Your task to perform on an android device: change the clock display to analog Image 0: 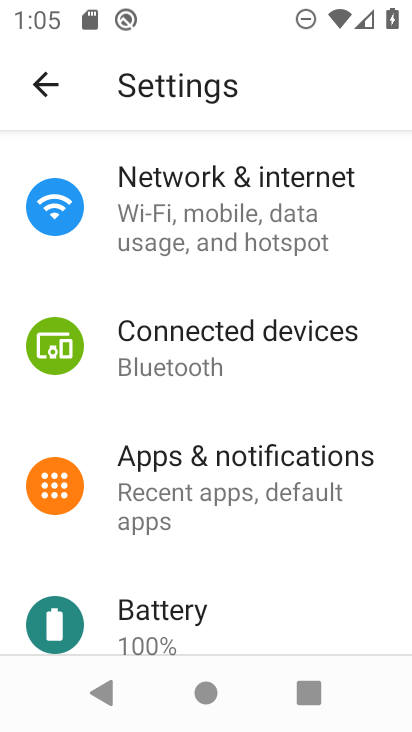
Step 0: press home button
Your task to perform on an android device: change the clock display to analog Image 1: 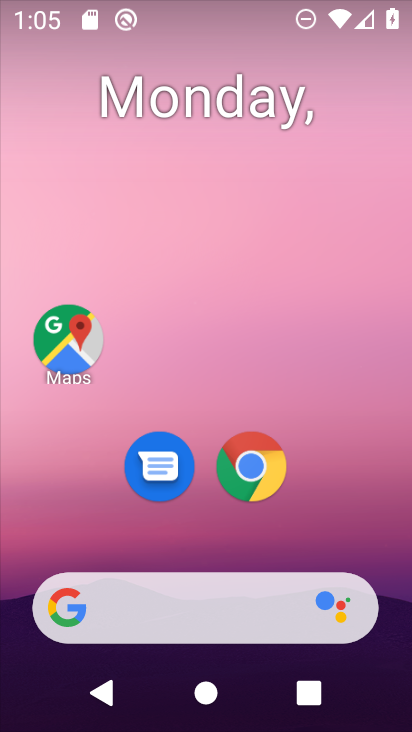
Step 1: drag from (207, 549) to (245, 20)
Your task to perform on an android device: change the clock display to analog Image 2: 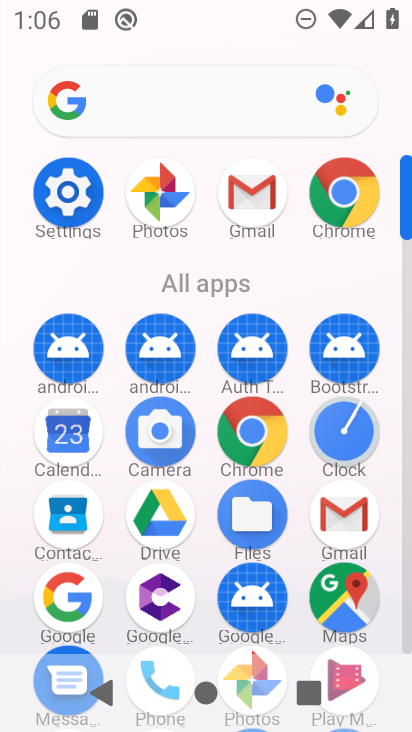
Step 2: click (338, 427)
Your task to perform on an android device: change the clock display to analog Image 3: 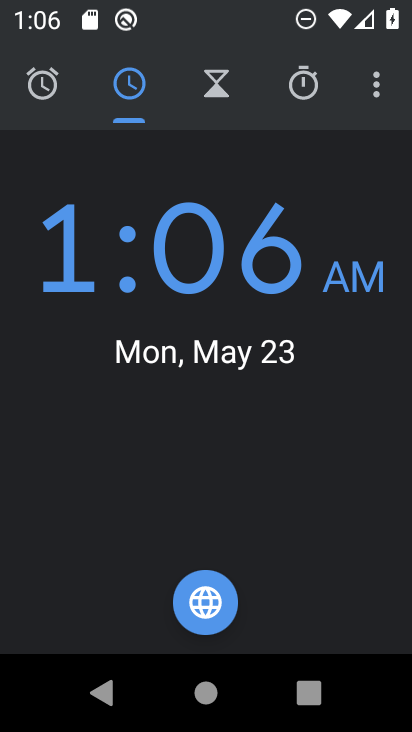
Step 3: click (371, 77)
Your task to perform on an android device: change the clock display to analog Image 4: 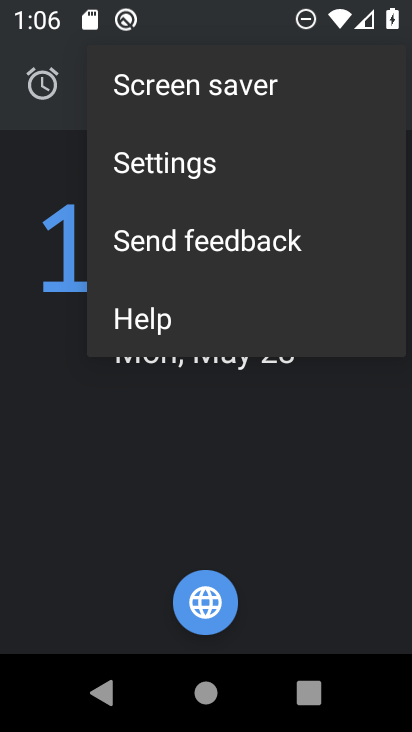
Step 4: click (192, 164)
Your task to perform on an android device: change the clock display to analog Image 5: 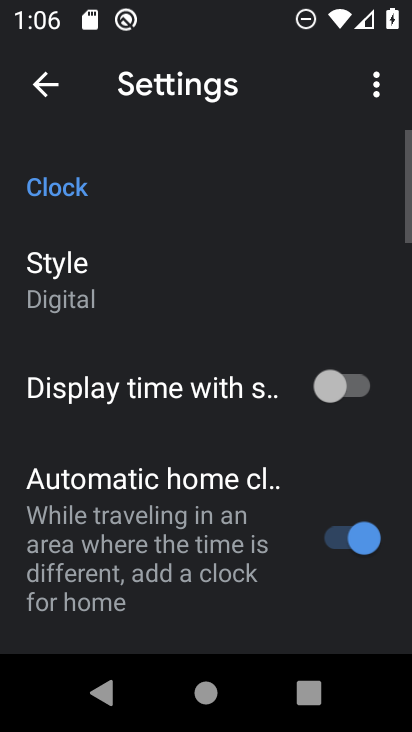
Step 5: click (66, 286)
Your task to perform on an android device: change the clock display to analog Image 6: 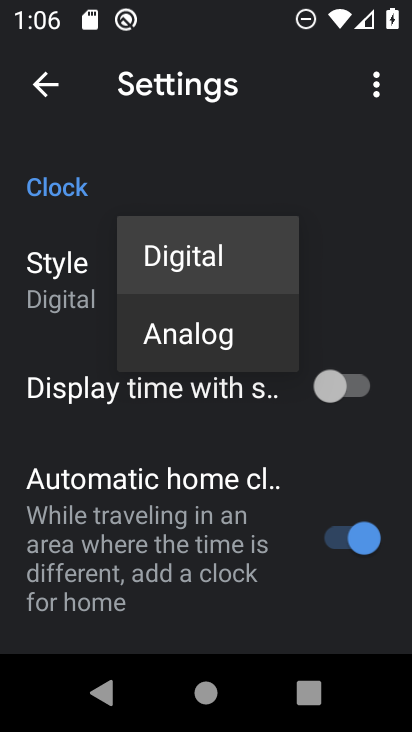
Step 6: click (159, 345)
Your task to perform on an android device: change the clock display to analog Image 7: 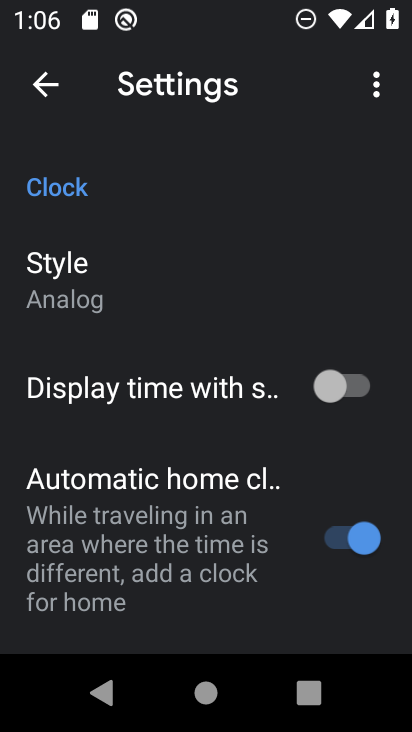
Step 7: task complete